Your task to perform on an android device: Do I have any events tomorrow? Image 0: 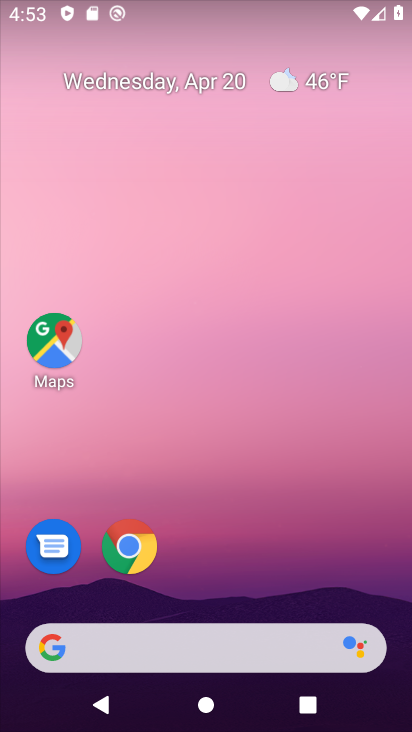
Step 0: drag from (380, 441) to (400, 69)
Your task to perform on an android device: Do I have any events tomorrow? Image 1: 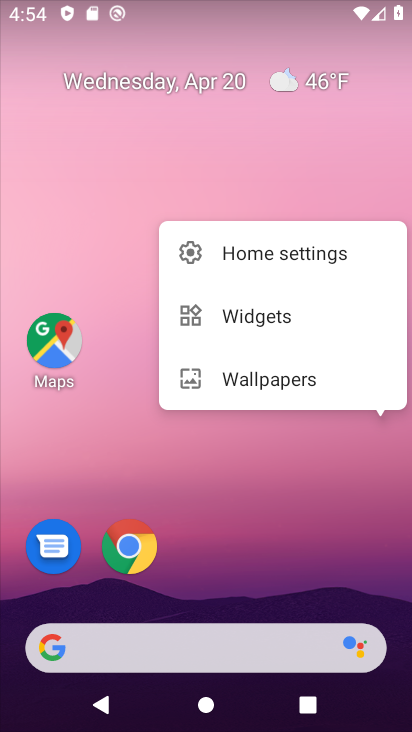
Step 1: click (294, 545)
Your task to perform on an android device: Do I have any events tomorrow? Image 2: 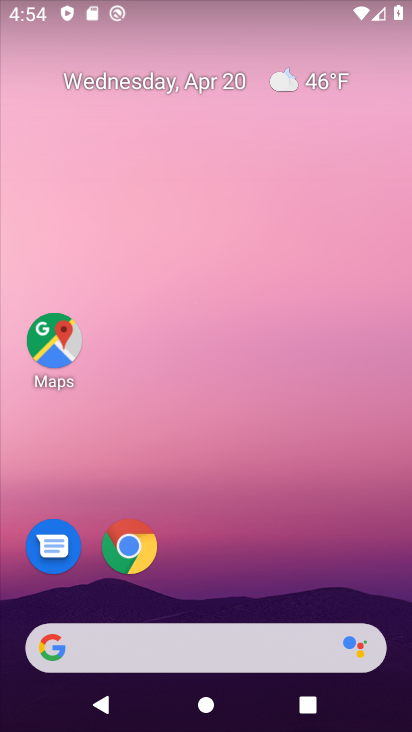
Step 2: drag from (267, 595) to (263, 86)
Your task to perform on an android device: Do I have any events tomorrow? Image 3: 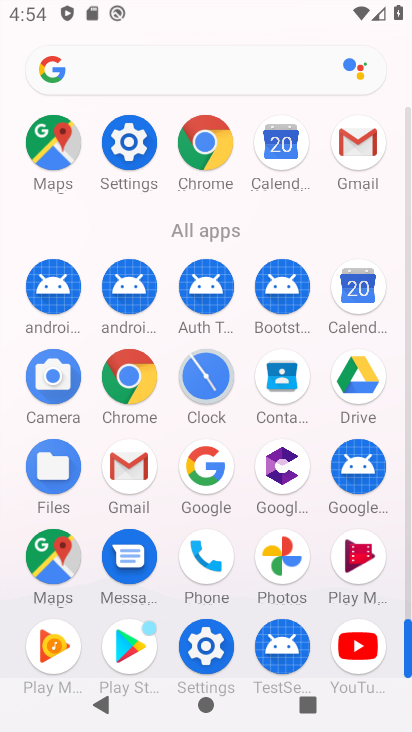
Step 3: click (364, 284)
Your task to perform on an android device: Do I have any events tomorrow? Image 4: 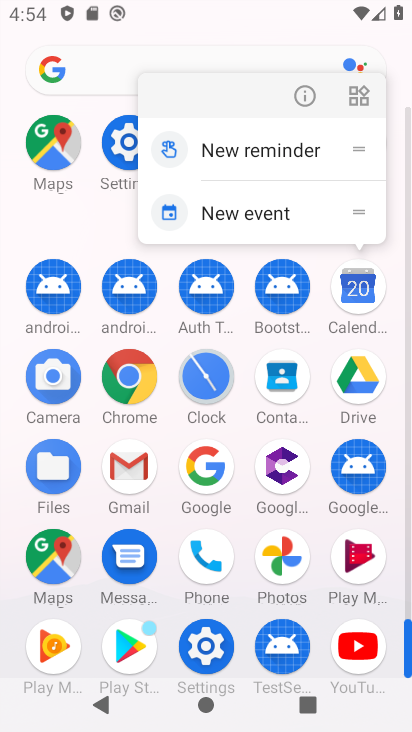
Step 4: click (364, 283)
Your task to perform on an android device: Do I have any events tomorrow? Image 5: 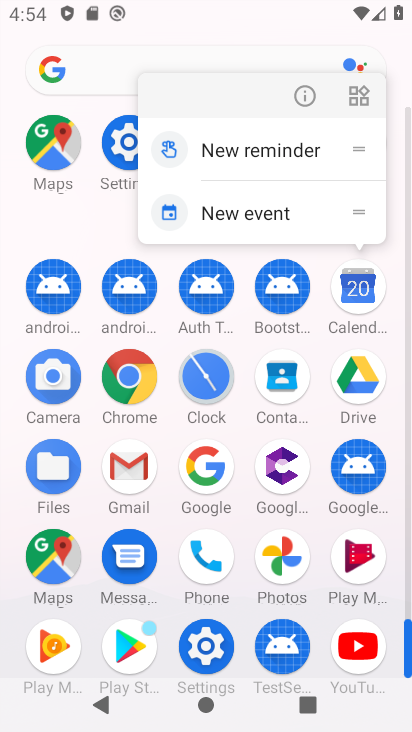
Step 5: click (364, 283)
Your task to perform on an android device: Do I have any events tomorrow? Image 6: 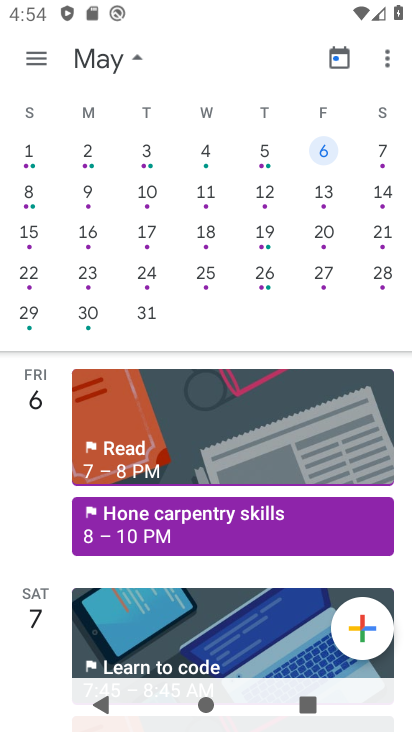
Step 6: click (392, 155)
Your task to perform on an android device: Do I have any events tomorrow? Image 7: 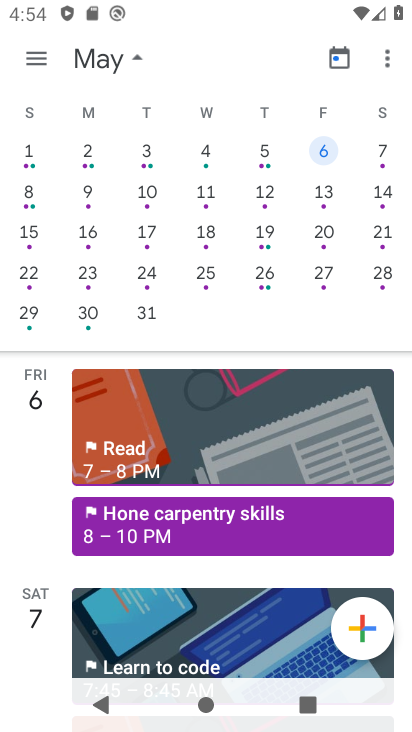
Step 7: click (386, 151)
Your task to perform on an android device: Do I have any events tomorrow? Image 8: 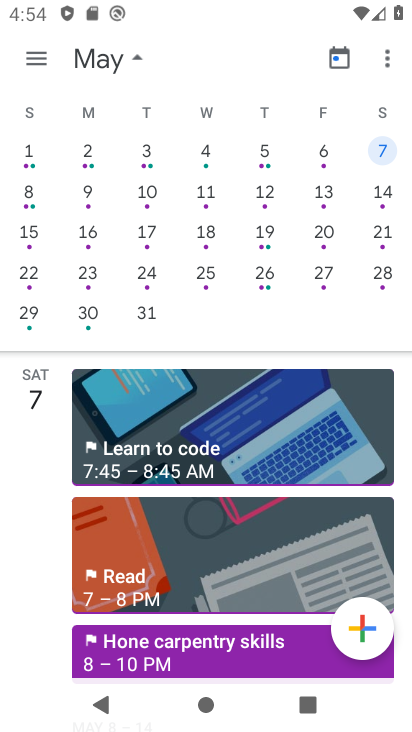
Step 8: task complete